Your task to perform on an android device: Open Google Maps Image 0: 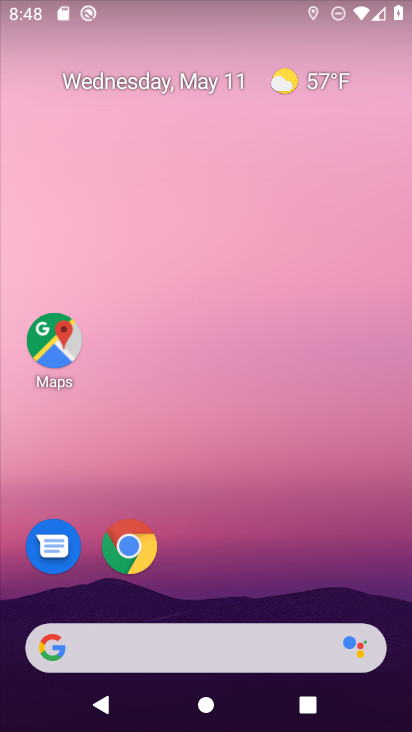
Step 0: click (54, 335)
Your task to perform on an android device: Open Google Maps Image 1: 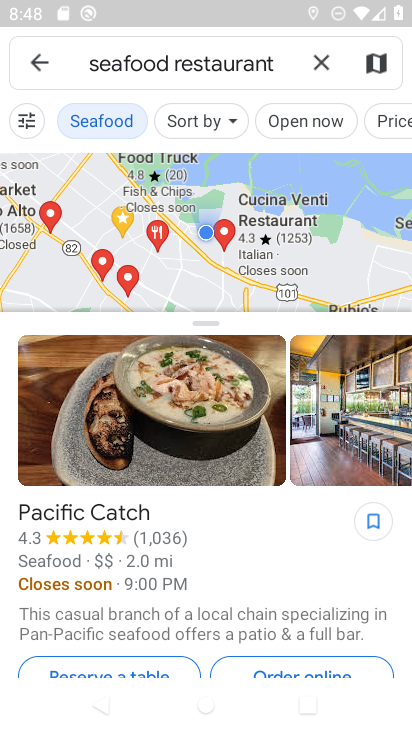
Step 1: click (311, 63)
Your task to perform on an android device: Open Google Maps Image 2: 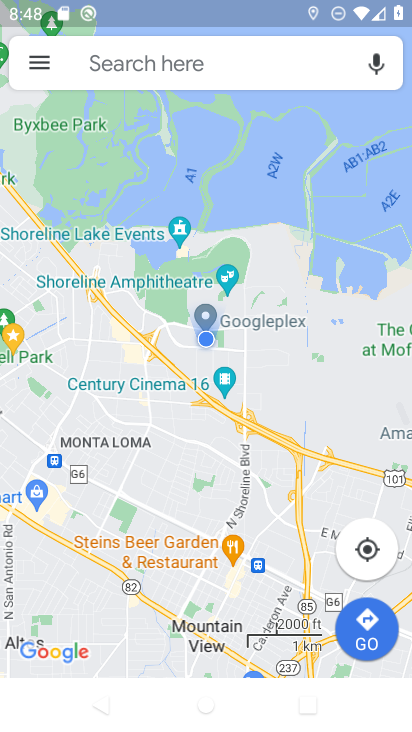
Step 2: task complete